Your task to perform on an android device: check the backup settings in the google photos Image 0: 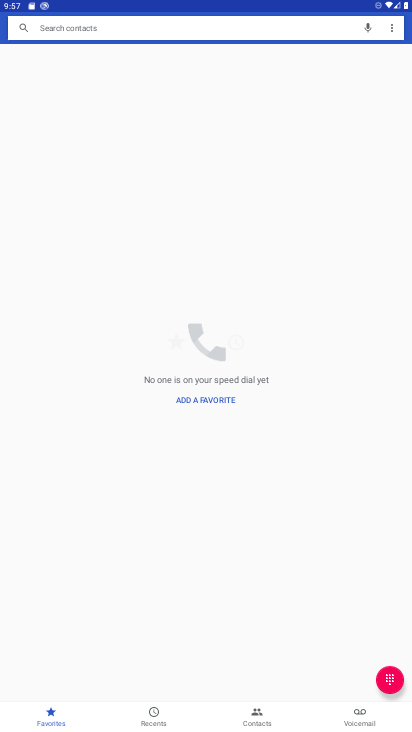
Step 0: press home button
Your task to perform on an android device: check the backup settings in the google photos Image 1: 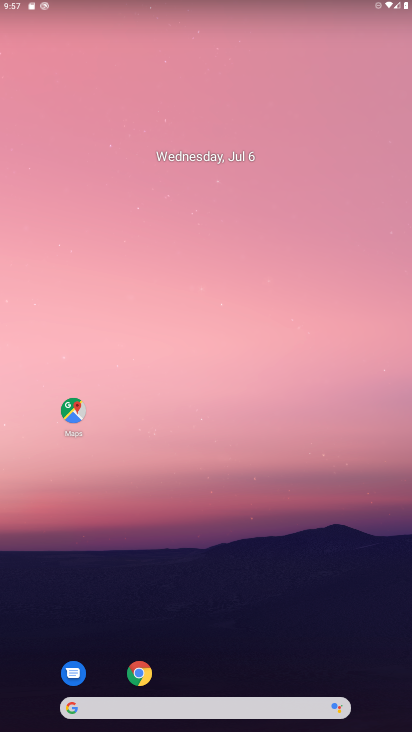
Step 1: drag from (192, 668) to (239, 151)
Your task to perform on an android device: check the backup settings in the google photos Image 2: 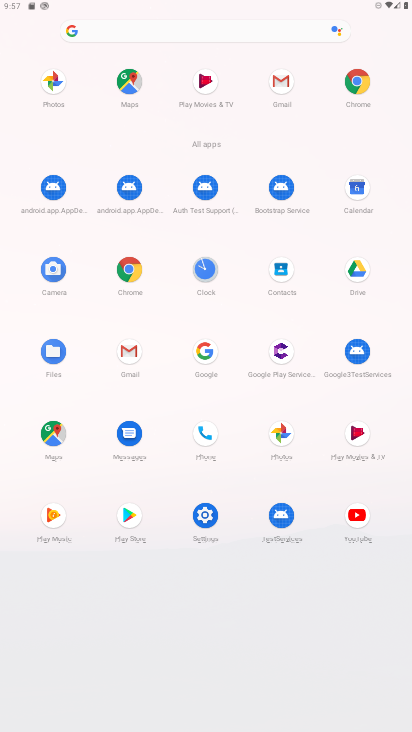
Step 2: click (276, 430)
Your task to perform on an android device: check the backup settings in the google photos Image 3: 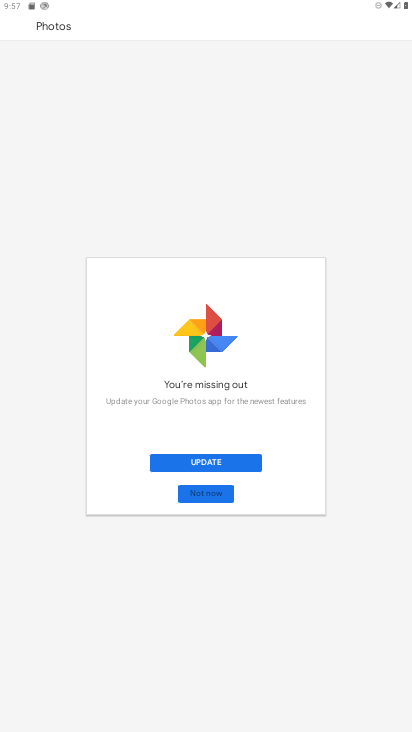
Step 3: click (210, 495)
Your task to perform on an android device: check the backup settings in the google photos Image 4: 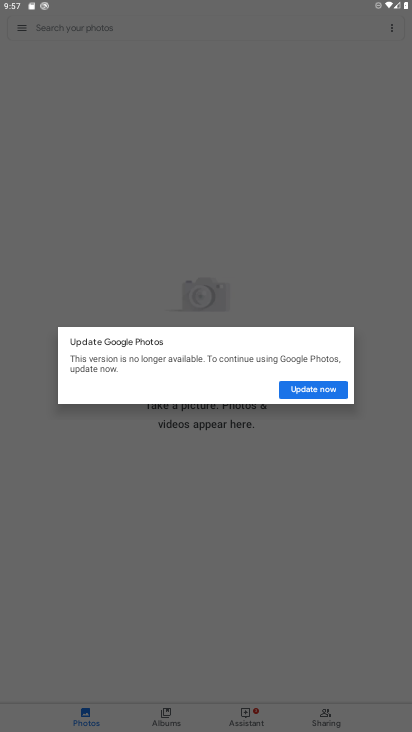
Step 4: click (332, 387)
Your task to perform on an android device: check the backup settings in the google photos Image 5: 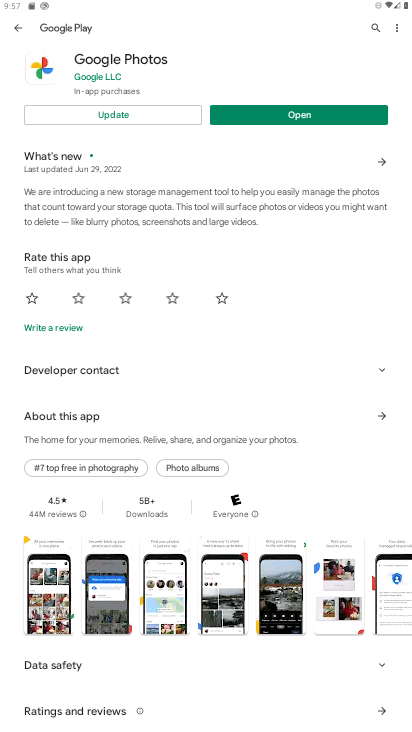
Step 5: click (324, 119)
Your task to perform on an android device: check the backup settings in the google photos Image 6: 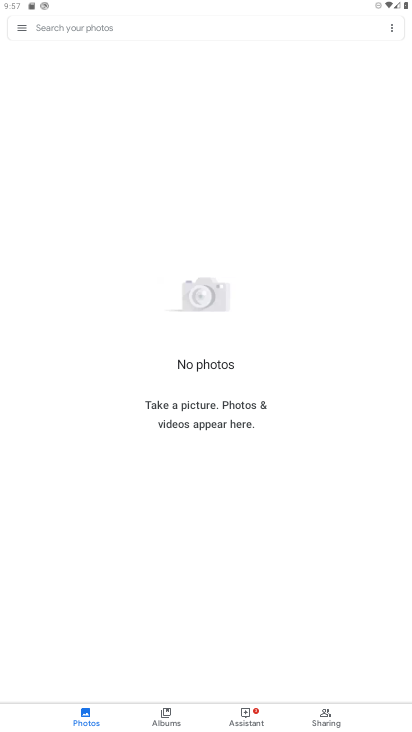
Step 6: click (14, 28)
Your task to perform on an android device: check the backup settings in the google photos Image 7: 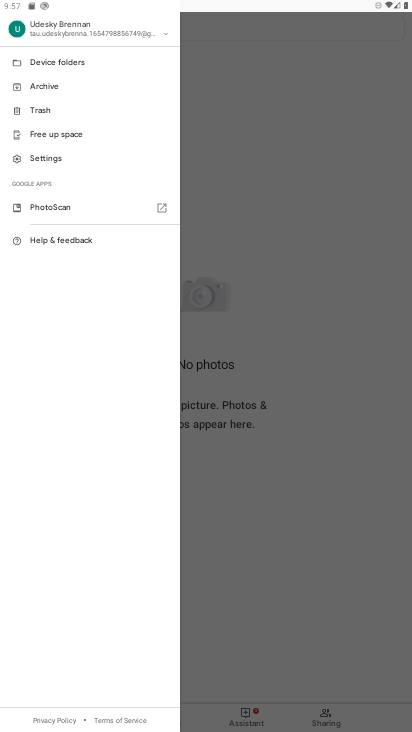
Step 7: click (69, 166)
Your task to perform on an android device: check the backup settings in the google photos Image 8: 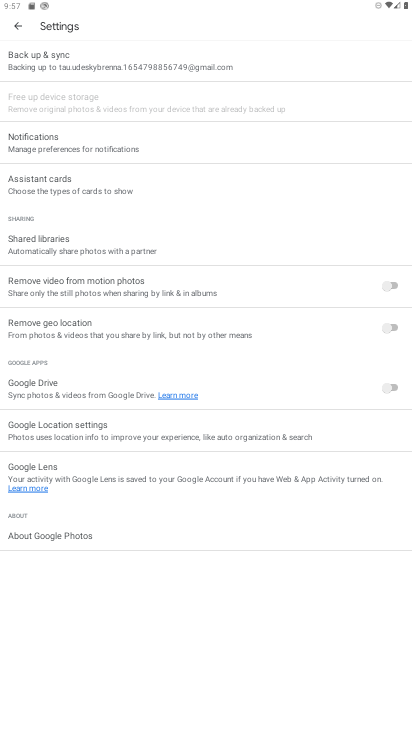
Step 8: click (110, 71)
Your task to perform on an android device: check the backup settings in the google photos Image 9: 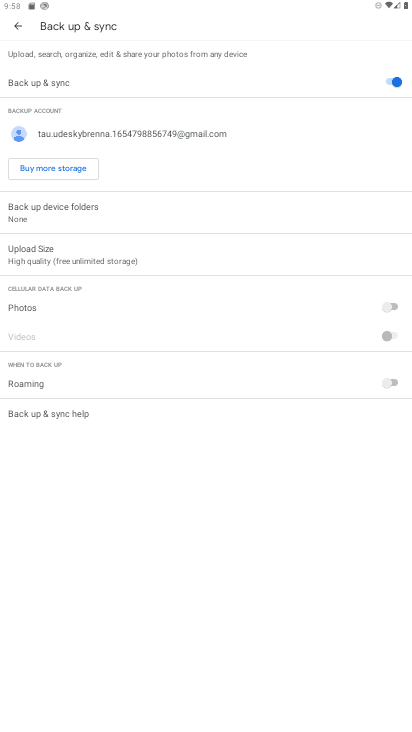
Step 9: task complete